Your task to perform on an android device: empty trash in the gmail app Image 0: 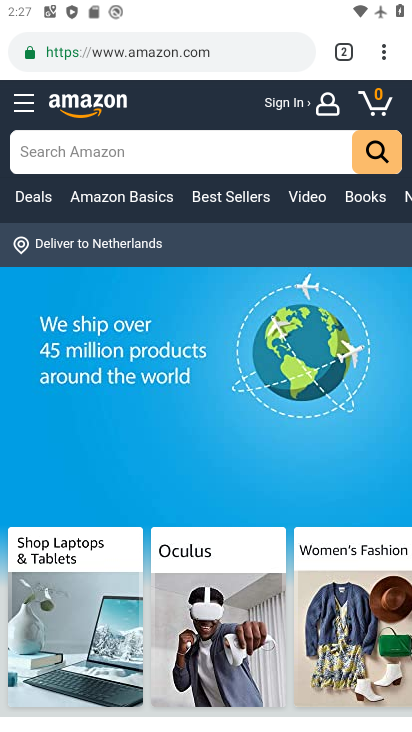
Step 0: press home button
Your task to perform on an android device: empty trash in the gmail app Image 1: 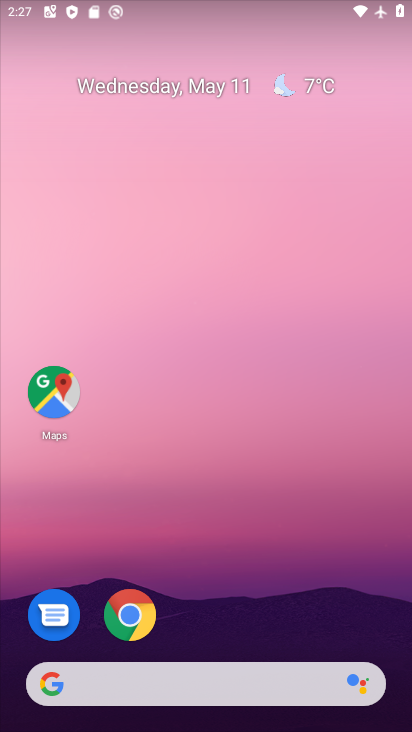
Step 1: drag from (243, 616) to (246, 17)
Your task to perform on an android device: empty trash in the gmail app Image 2: 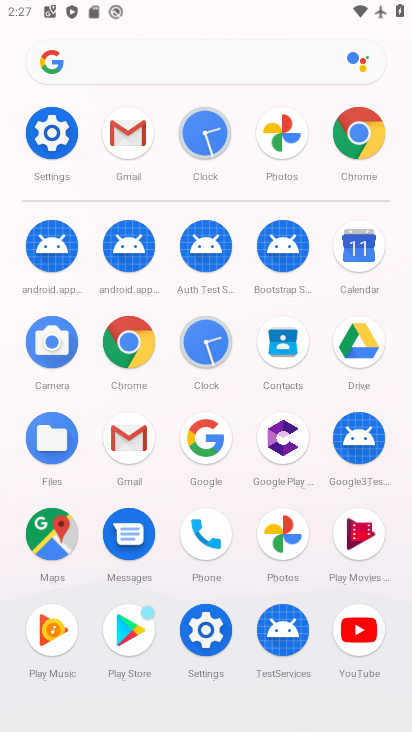
Step 2: click (135, 129)
Your task to perform on an android device: empty trash in the gmail app Image 3: 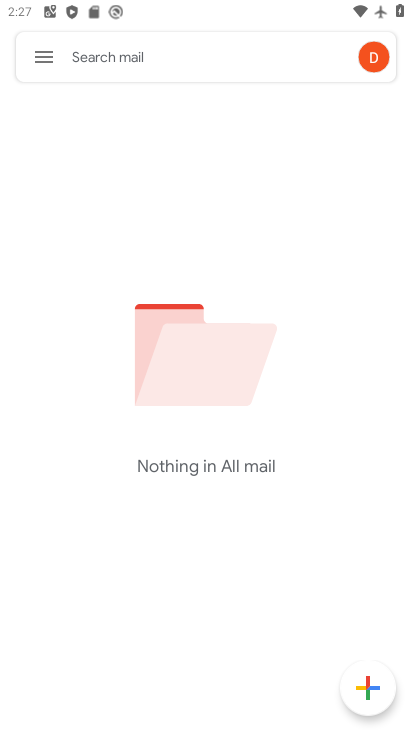
Step 3: click (48, 62)
Your task to perform on an android device: empty trash in the gmail app Image 4: 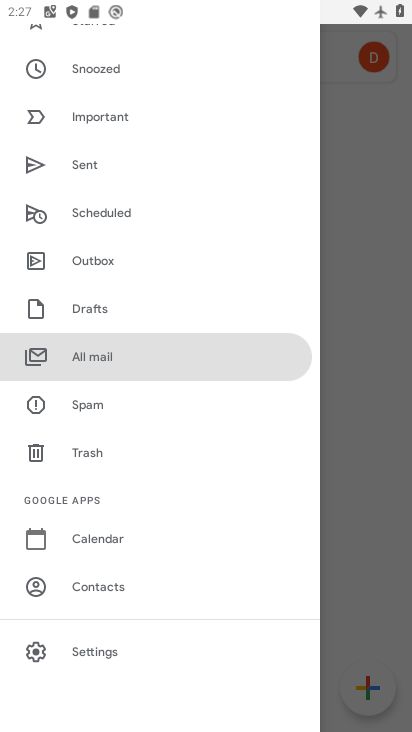
Step 4: click (88, 449)
Your task to perform on an android device: empty trash in the gmail app Image 5: 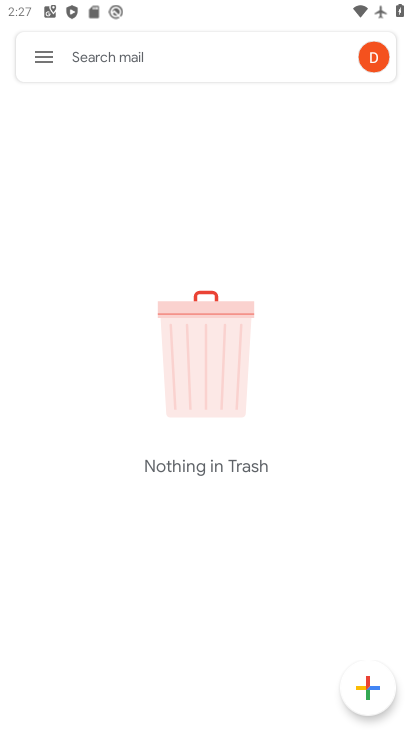
Step 5: task complete